Your task to perform on an android device: Show me recent news Image 0: 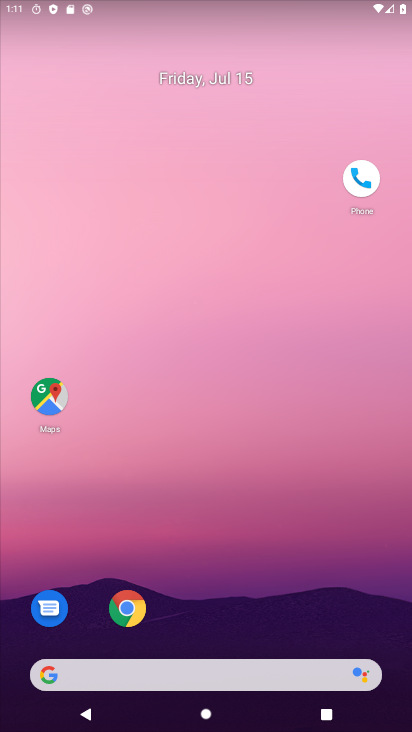
Step 0: drag from (375, 662) to (408, 344)
Your task to perform on an android device: Show me recent news Image 1: 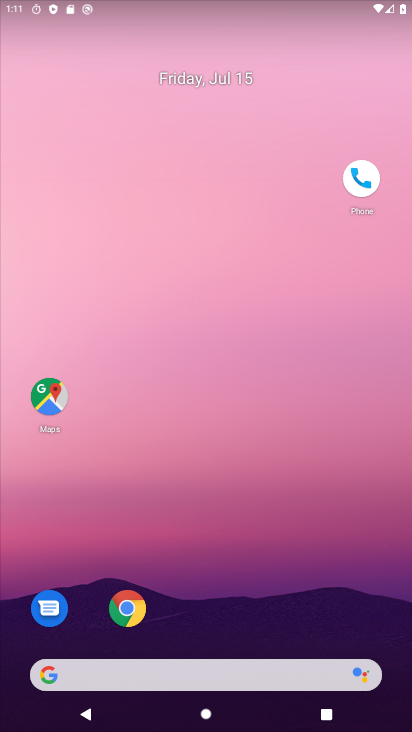
Step 1: click (142, 683)
Your task to perform on an android device: Show me recent news Image 2: 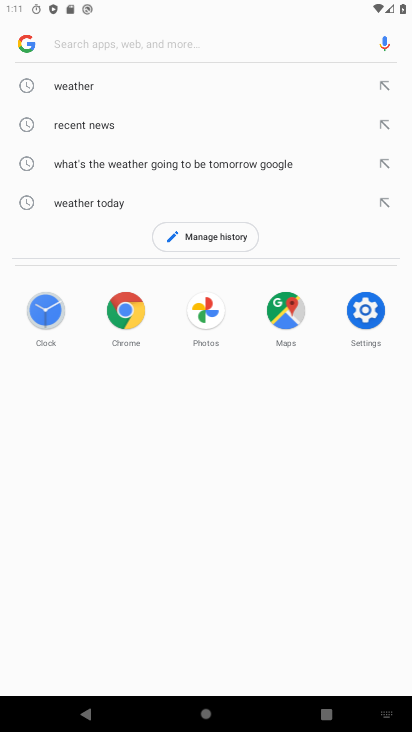
Step 2: click (98, 121)
Your task to perform on an android device: Show me recent news Image 3: 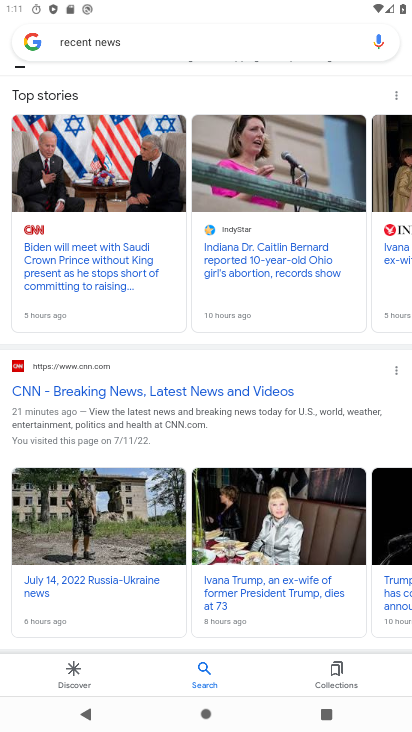
Step 3: task complete